Your task to perform on an android device: Open eBay Image 0: 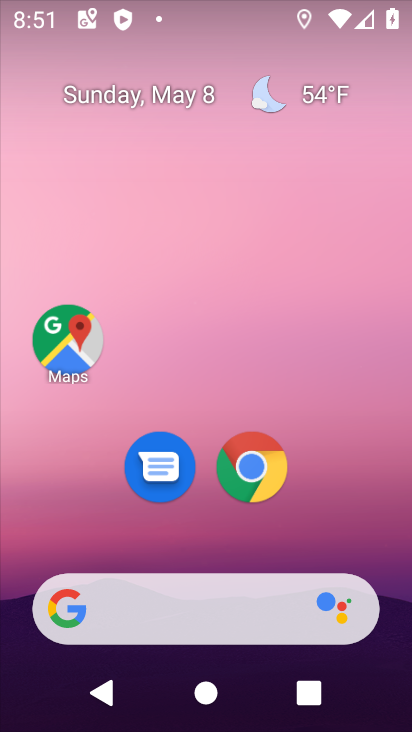
Step 0: click (251, 466)
Your task to perform on an android device: Open eBay Image 1: 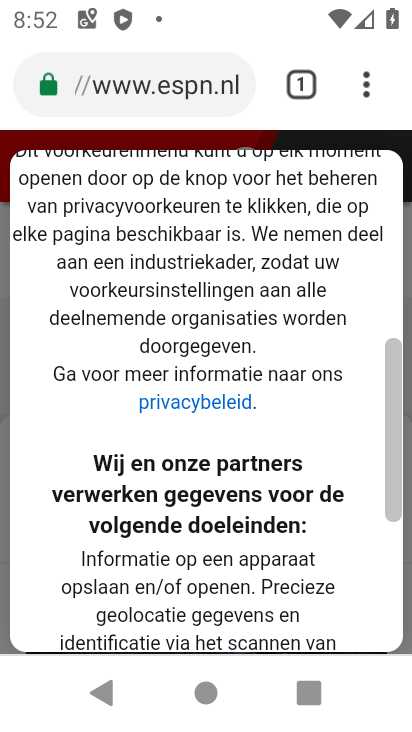
Step 1: click (133, 79)
Your task to perform on an android device: Open eBay Image 2: 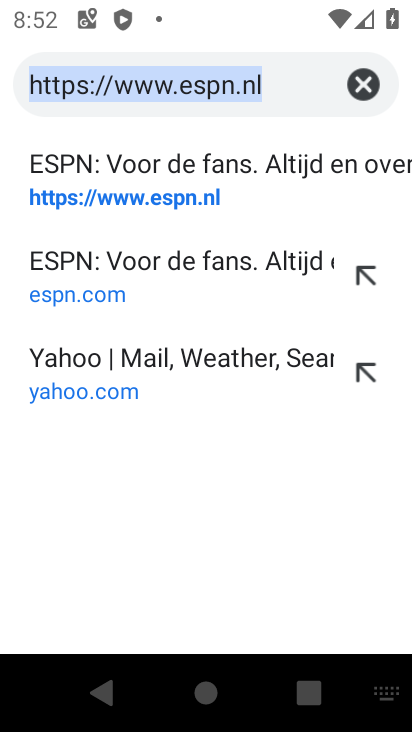
Step 2: click (355, 85)
Your task to perform on an android device: Open eBay Image 3: 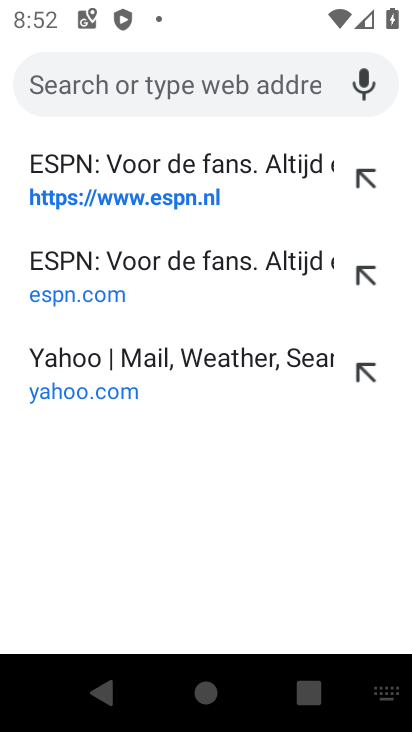
Step 3: type "ebay"
Your task to perform on an android device: Open eBay Image 4: 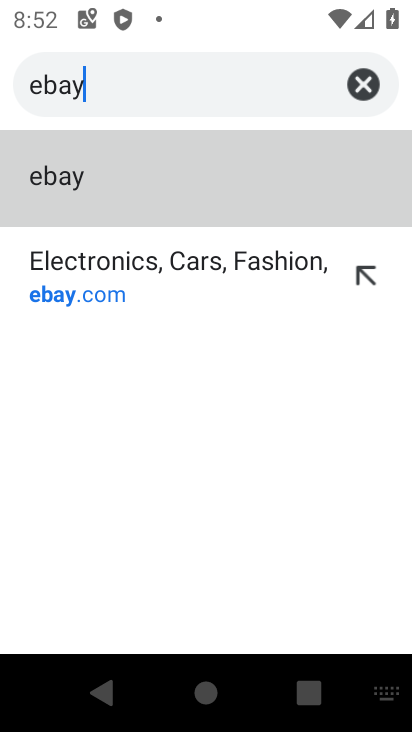
Step 4: click (70, 276)
Your task to perform on an android device: Open eBay Image 5: 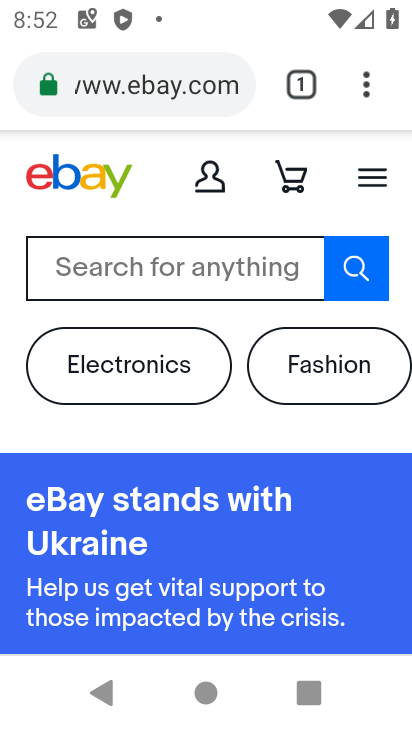
Step 5: task complete